Your task to perform on an android device: toggle javascript in the chrome app Image 0: 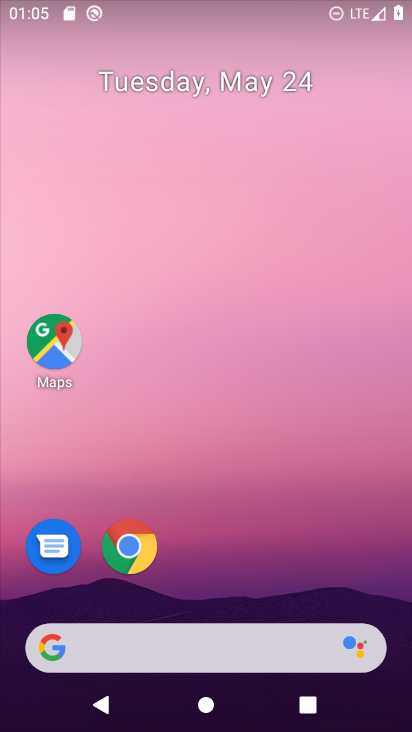
Step 0: drag from (193, 660) to (255, 27)
Your task to perform on an android device: toggle javascript in the chrome app Image 1: 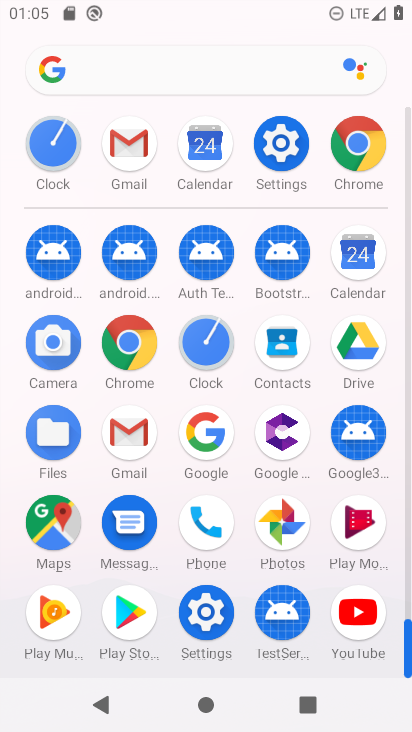
Step 1: click (136, 331)
Your task to perform on an android device: toggle javascript in the chrome app Image 2: 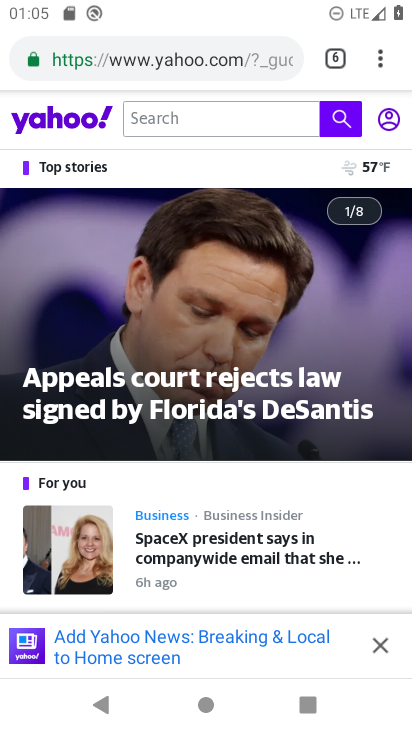
Step 2: click (387, 60)
Your task to perform on an android device: toggle javascript in the chrome app Image 3: 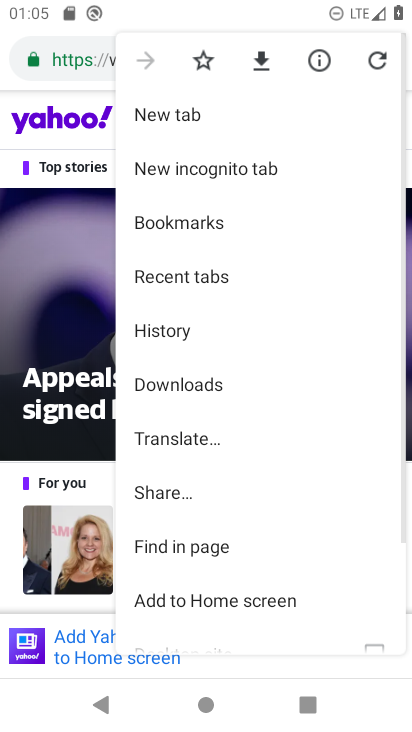
Step 3: drag from (256, 576) to (300, 115)
Your task to perform on an android device: toggle javascript in the chrome app Image 4: 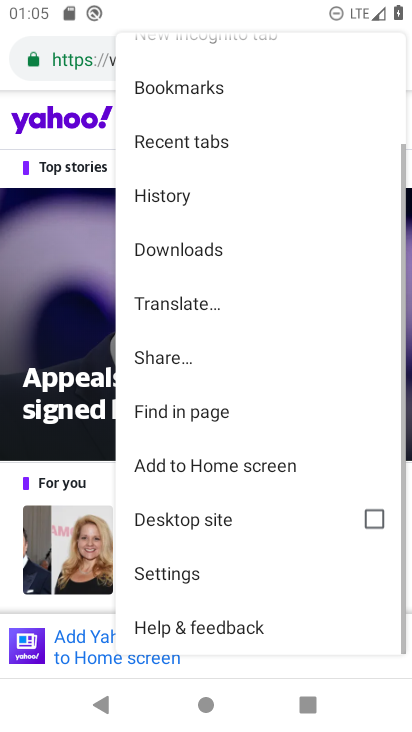
Step 4: click (219, 584)
Your task to perform on an android device: toggle javascript in the chrome app Image 5: 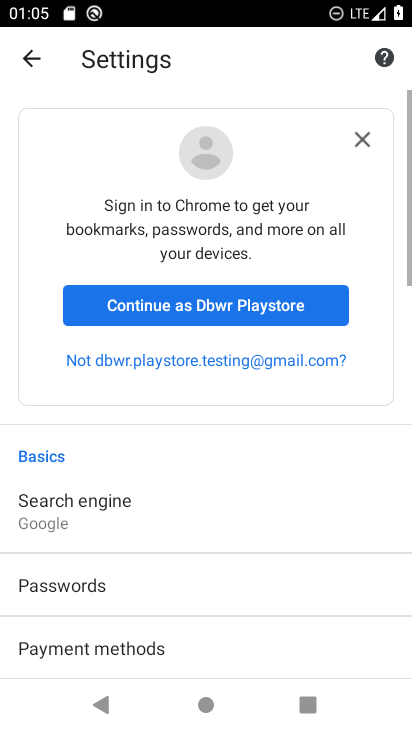
Step 5: drag from (217, 584) to (258, 116)
Your task to perform on an android device: toggle javascript in the chrome app Image 6: 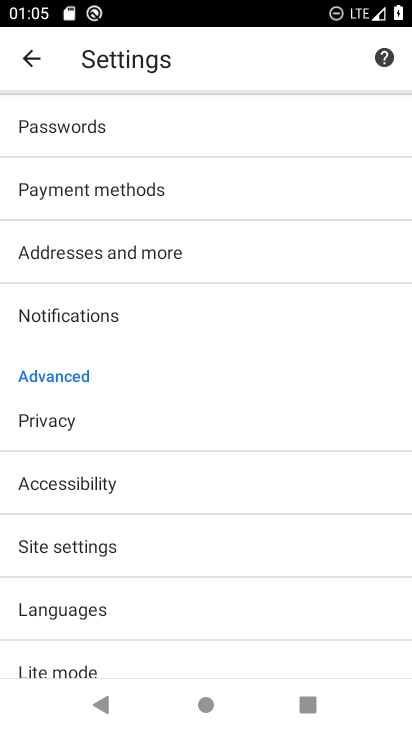
Step 6: click (84, 538)
Your task to perform on an android device: toggle javascript in the chrome app Image 7: 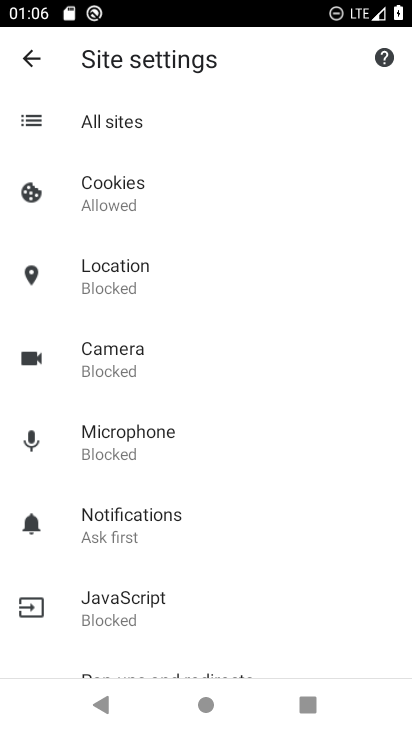
Step 7: click (147, 617)
Your task to perform on an android device: toggle javascript in the chrome app Image 8: 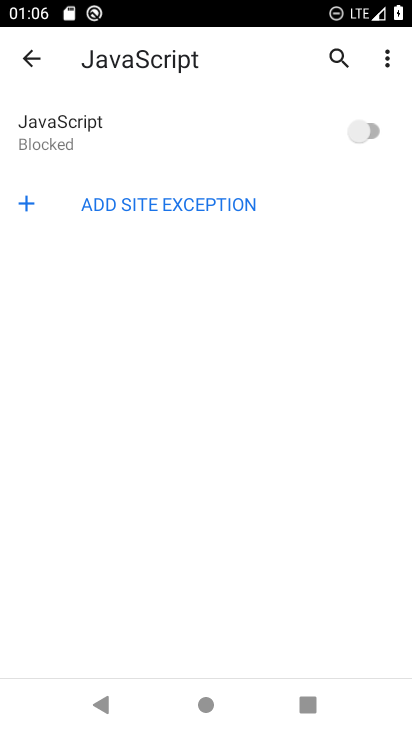
Step 8: click (366, 134)
Your task to perform on an android device: toggle javascript in the chrome app Image 9: 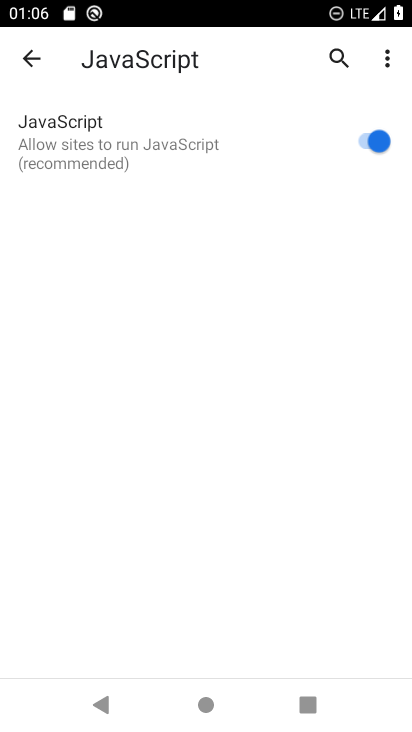
Step 9: task complete